Your task to perform on an android device: turn off picture-in-picture Image 0: 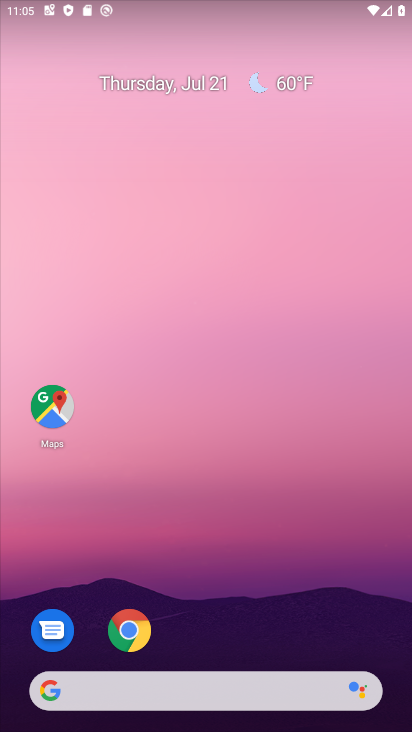
Step 0: press home button
Your task to perform on an android device: turn off picture-in-picture Image 1: 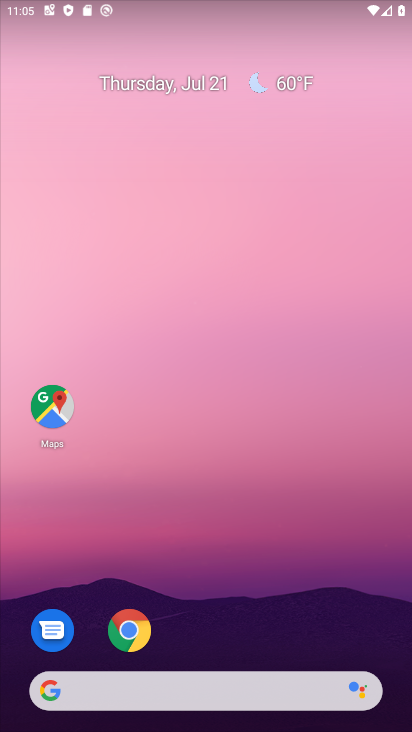
Step 1: click (135, 626)
Your task to perform on an android device: turn off picture-in-picture Image 2: 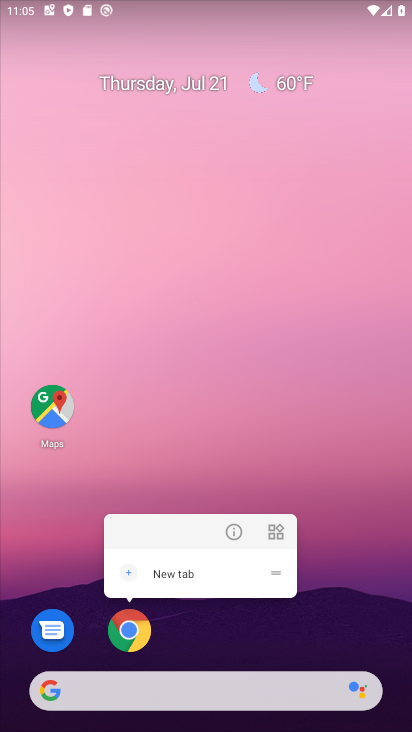
Step 2: click (230, 533)
Your task to perform on an android device: turn off picture-in-picture Image 3: 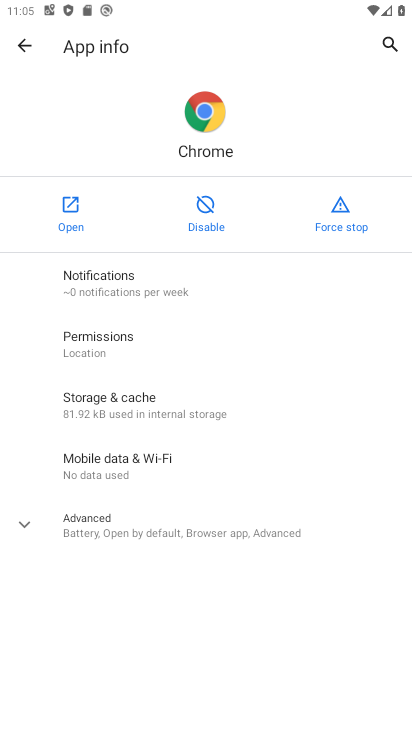
Step 3: click (130, 526)
Your task to perform on an android device: turn off picture-in-picture Image 4: 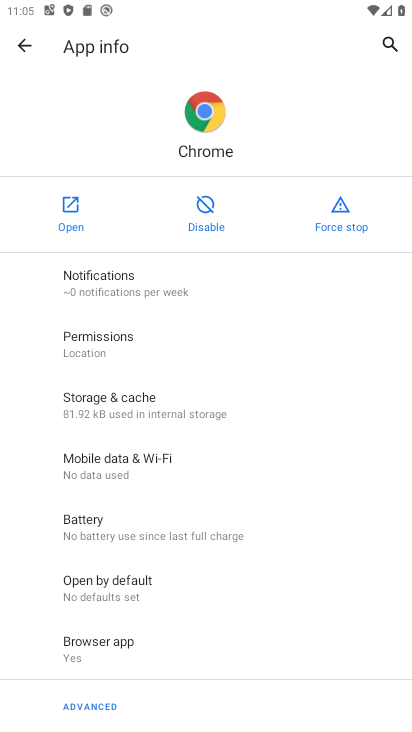
Step 4: drag from (150, 633) to (310, 191)
Your task to perform on an android device: turn off picture-in-picture Image 5: 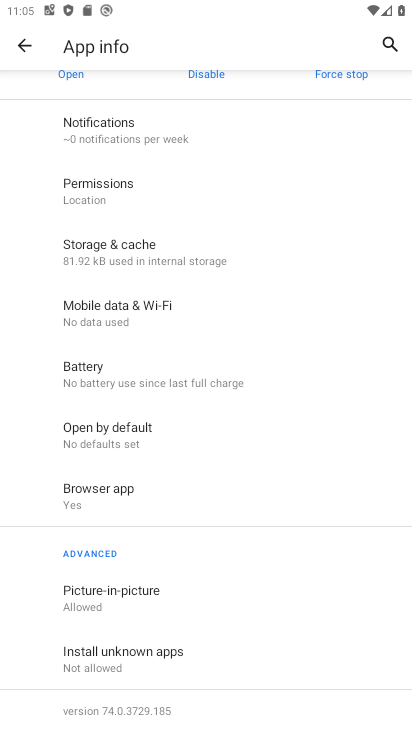
Step 5: click (96, 594)
Your task to perform on an android device: turn off picture-in-picture Image 6: 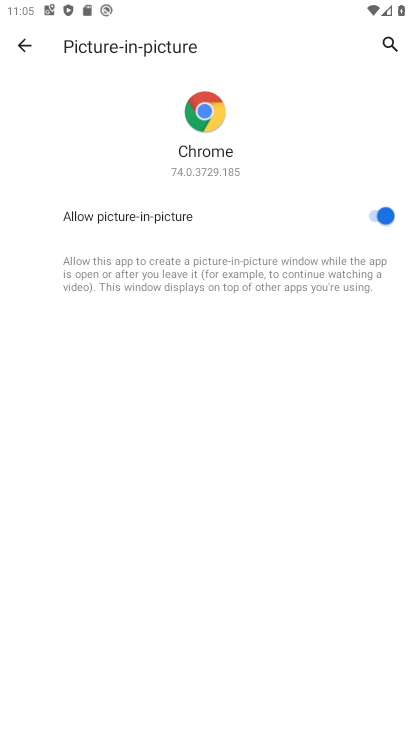
Step 6: click (376, 216)
Your task to perform on an android device: turn off picture-in-picture Image 7: 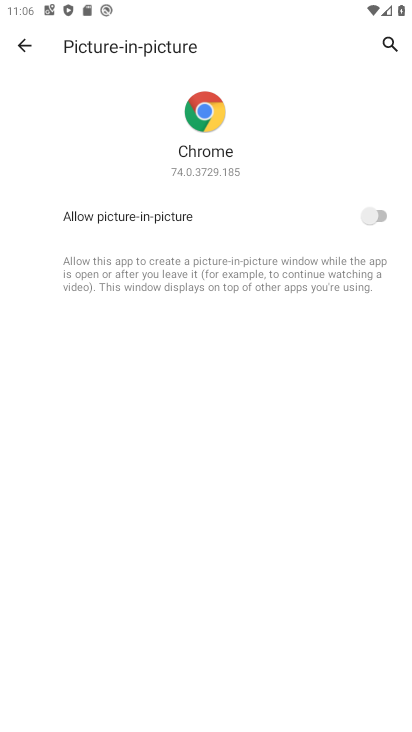
Step 7: task complete